Your task to perform on an android device: Open ESPN.com Image 0: 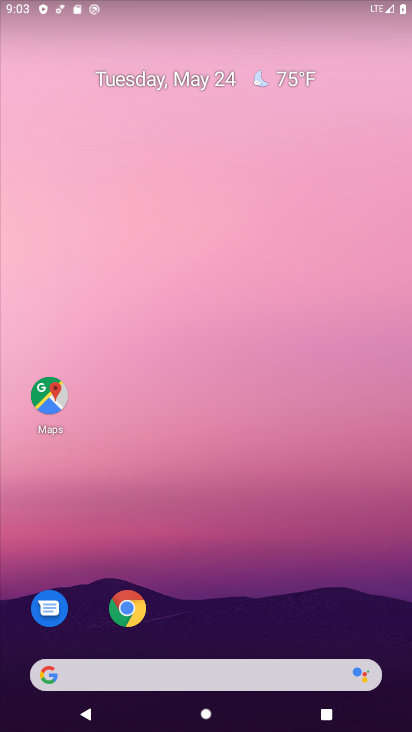
Step 0: click (136, 607)
Your task to perform on an android device: Open ESPN.com Image 1: 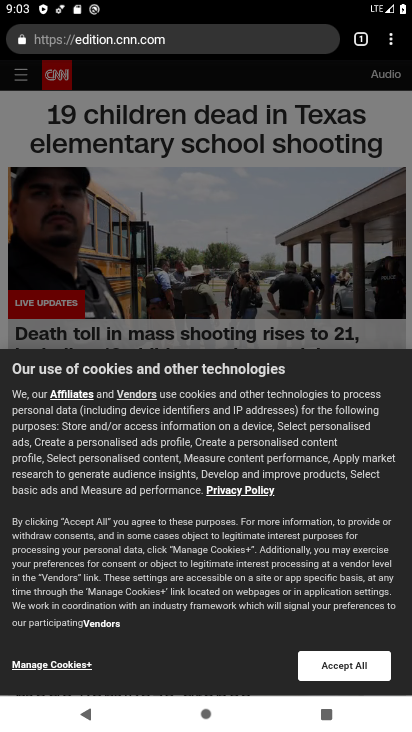
Step 1: click (362, 39)
Your task to perform on an android device: Open ESPN.com Image 2: 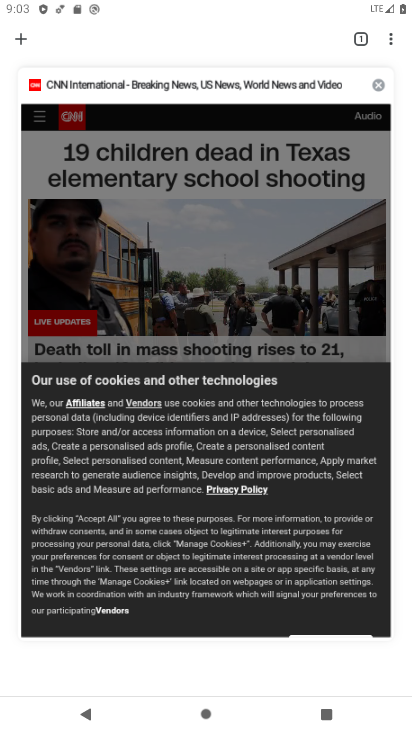
Step 2: click (30, 40)
Your task to perform on an android device: Open ESPN.com Image 3: 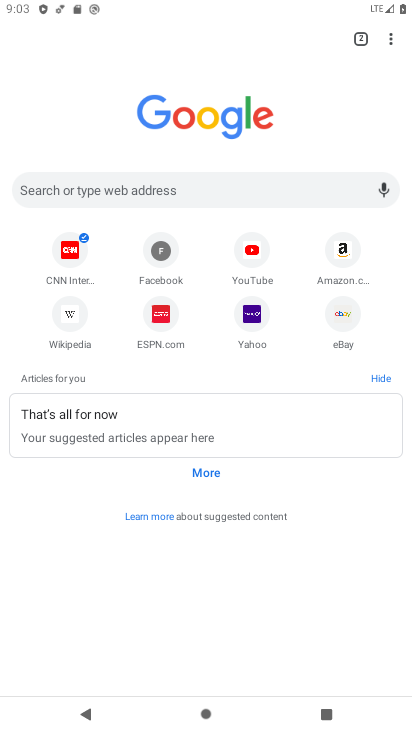
Step 3: click (161, 316)
Your task to perform on an android device: Open ESPN.com Image 4: 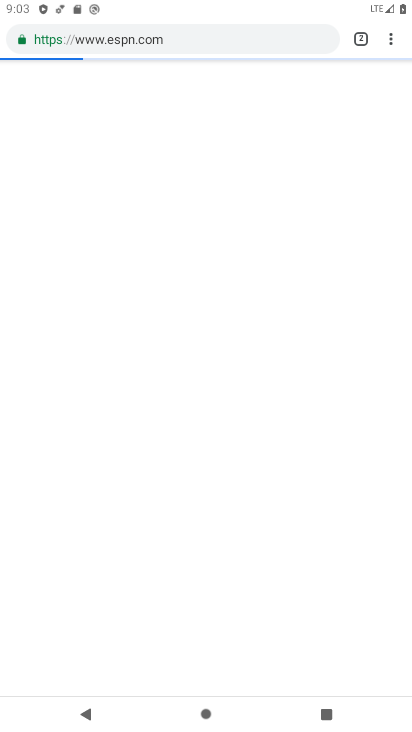
Step 4: task complete